Your task to perform on an android device: turn off notifications in google photos Image 0: 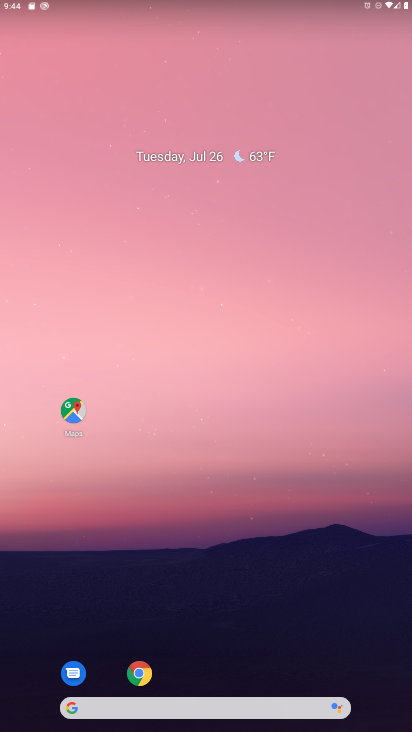
Step 0: drag from (322, 656) to (171, 20)
Your task to perform on an android device: turn off notifications in google photos Image 1: 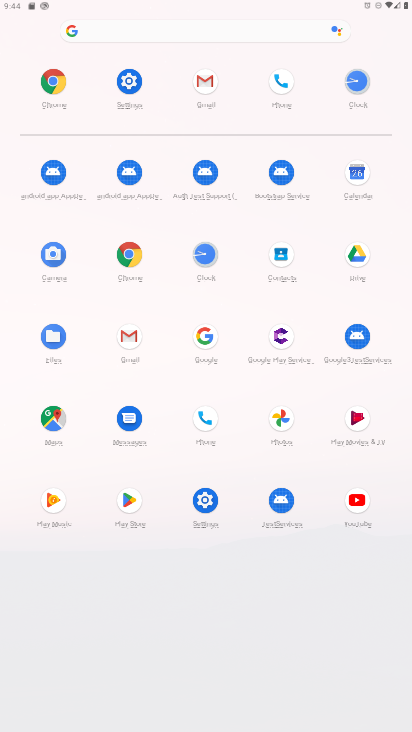
Step 1: click (268, 425)
Your task to perform on an android device: turn off notifications in google photos Image 2: 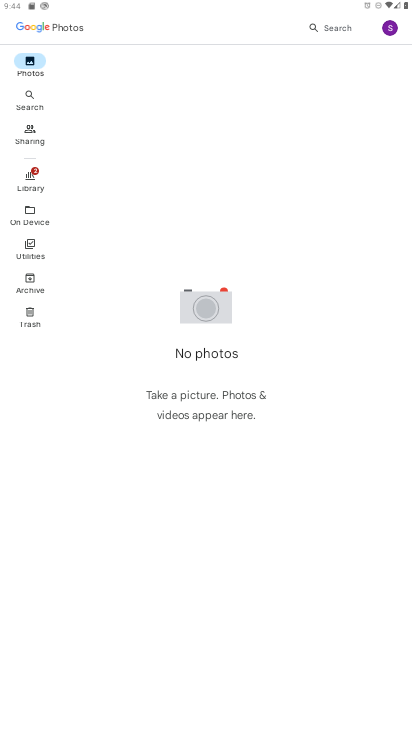
Step 2: click (392, 25)
Your task to perform on an android device: turn off notifications in google photos Image 3: 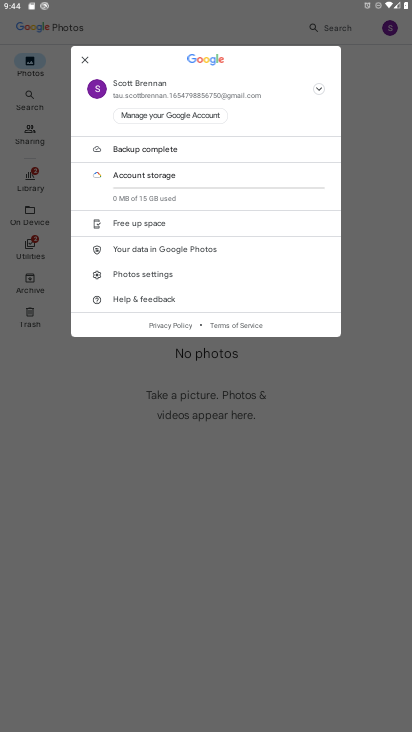
Step 3: click (152, 275)
Your task to perform on an android device: turn off notifications in google photos Image 4: 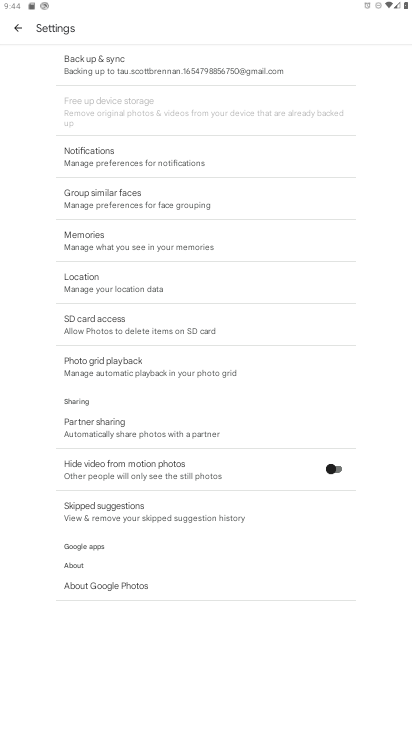
Step 4: click (101, 174)
Your task to perform on an android device: turn off notifications in google photos Image 5: 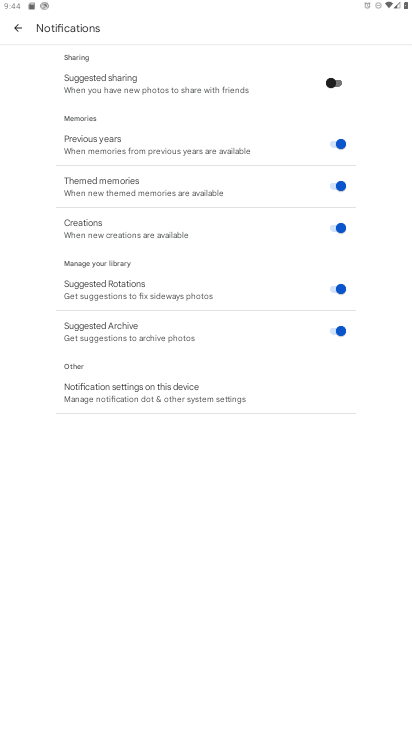
Step 5: task complete